Your task to perform on an android device: Open the map Image 0: 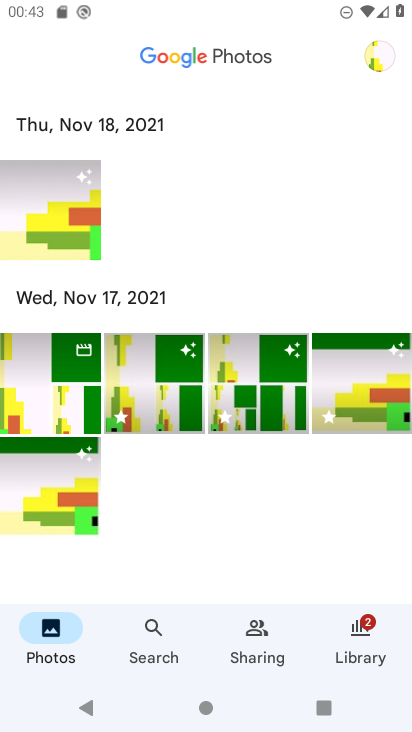
Step 0: press home button
Your task to perform on an android device: Open the map Image 1: 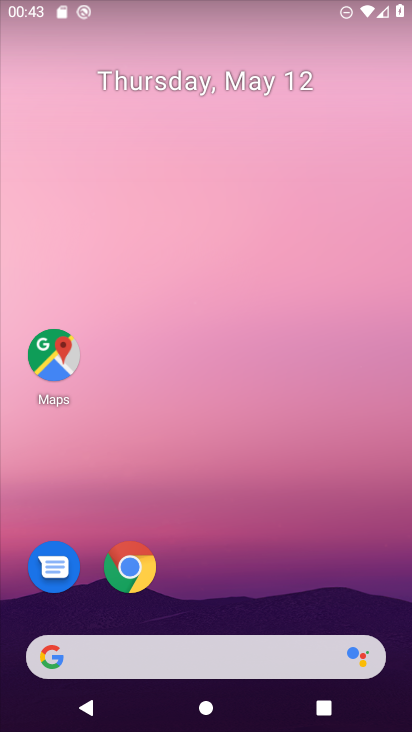
Step 1: click (32, 368)
Your task to perform on an android device: Open the map Image 2: 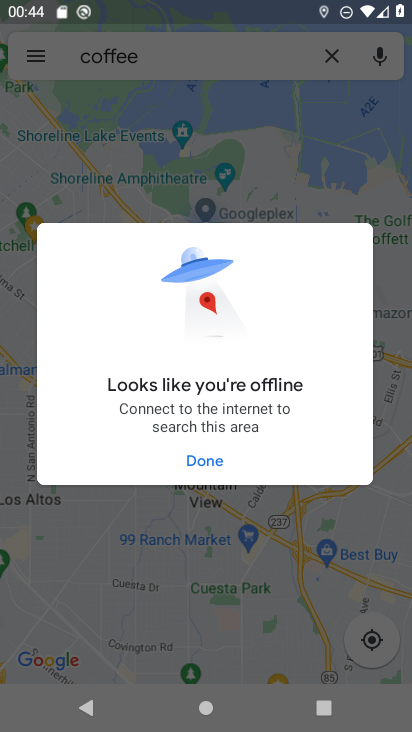
Step 2: click (177, 456)
Your task to perform on an android device: Open the map Image 3: 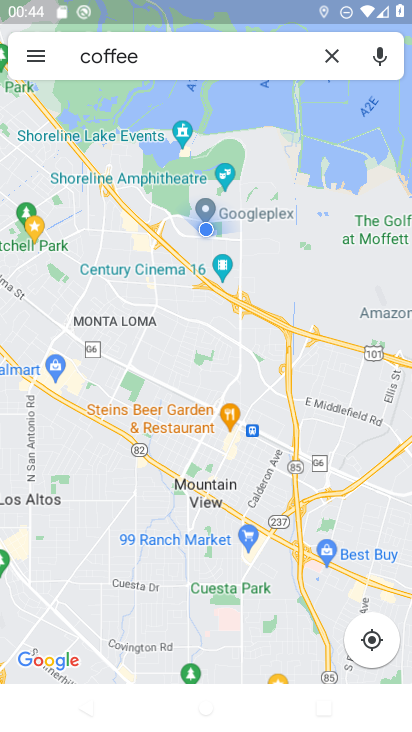
Step 3: task complete